Your task to perform on an android device: Check the weather Image 0: 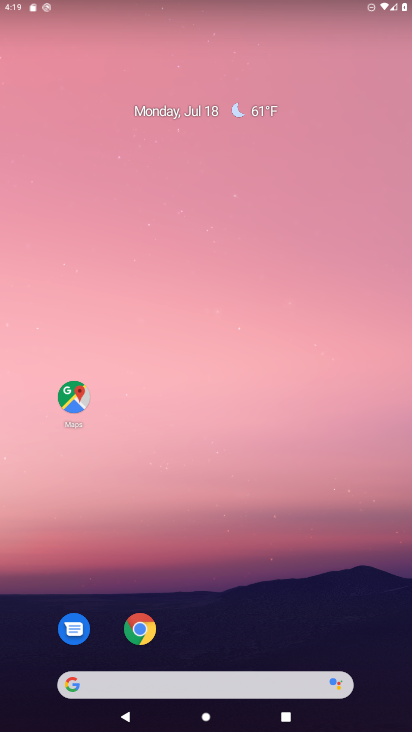
Step 0: drag from (183, 652) to (211, 255)
Your task to perform on an android device: Check the weather Image 1: 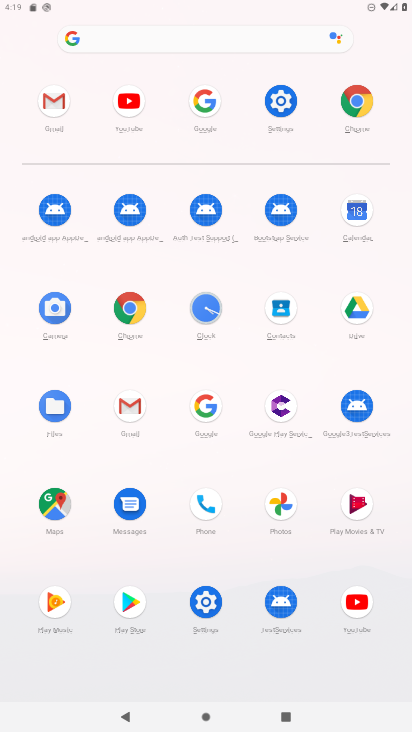
Step 1: click (198, 411)
Your task to perform on an android device: Check the weather Image 2: 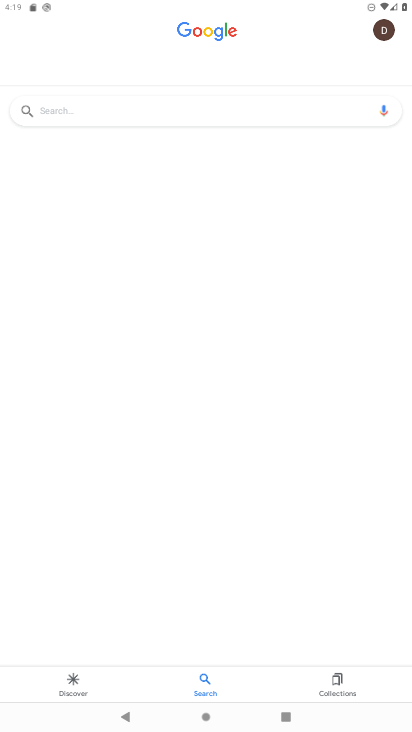
Step 2: click (92, 105)
Your task to perform on an android device: Check the weather Image 3: 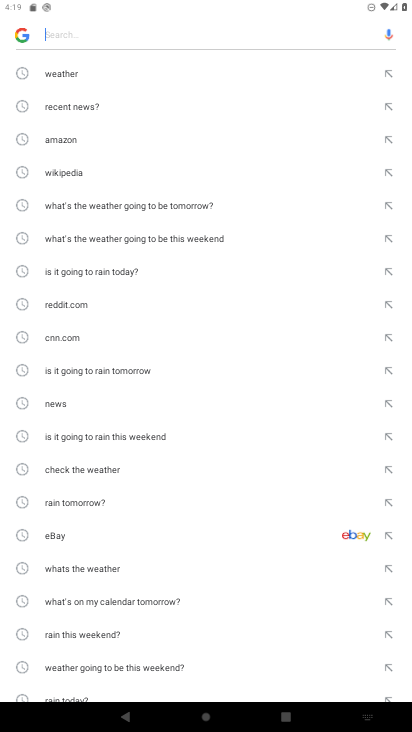
Step 3: click (79, 80)
Your task to perform on an android device: Check the weather Image 4: 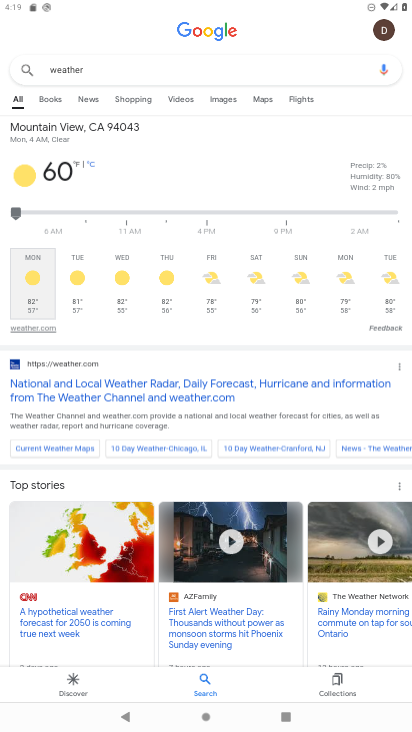
Step 4: task complete